Your task to perform on an android device: turn off sleep mode Image 0: 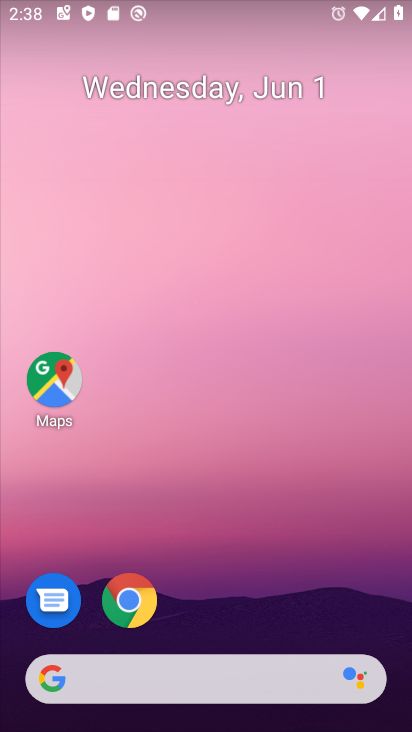
Step 0: drag from (278, 564) to (173, 8)
Your task to perform on an android device: turn off sleep mode Image 1: 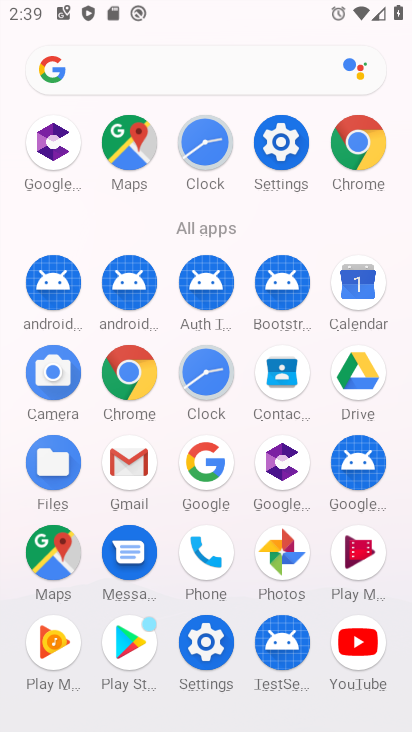
Step 1: drag from (9, 517) to (6, 227)
Your task to perform on an android device: turn off sleep mode Image 2: 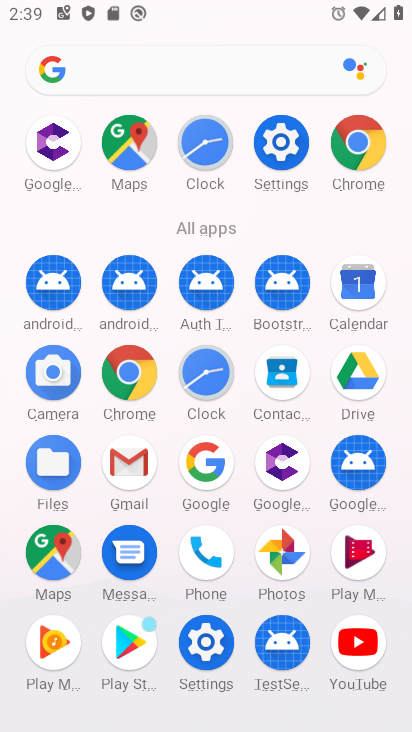
Step 2: click (202, 640)
Your task to perform on an android device: turn off sleep mode Image 3: 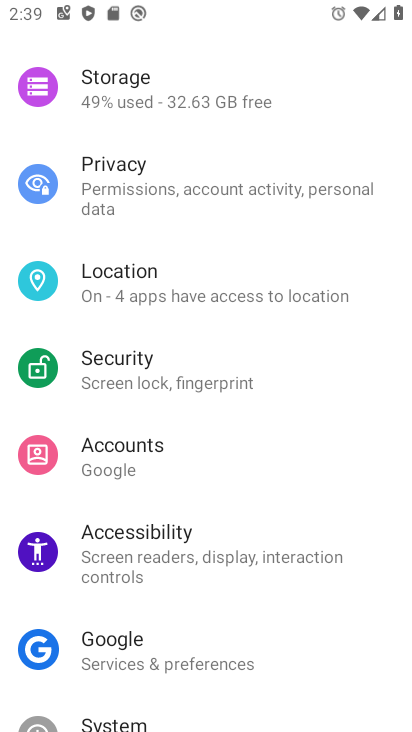
Step 3: drag from (260, 178) to (271, 597)
Your task to perform on an android device: turn off sleep mode Image 4: 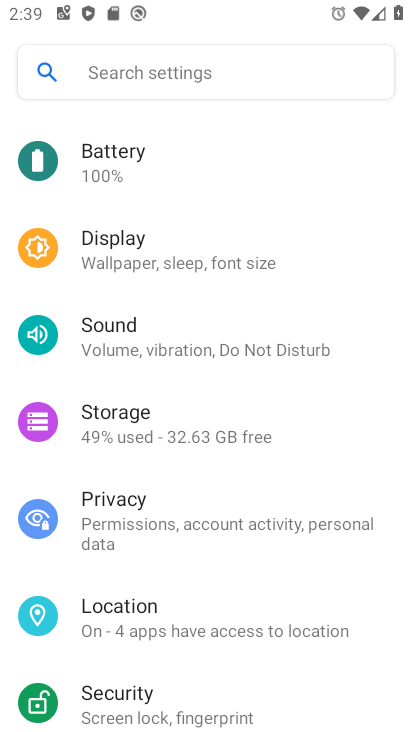
Step 4: drag from (175, 228) to (198, 547)
Your task to perform on an android device: turn off sleep mode Image 5: 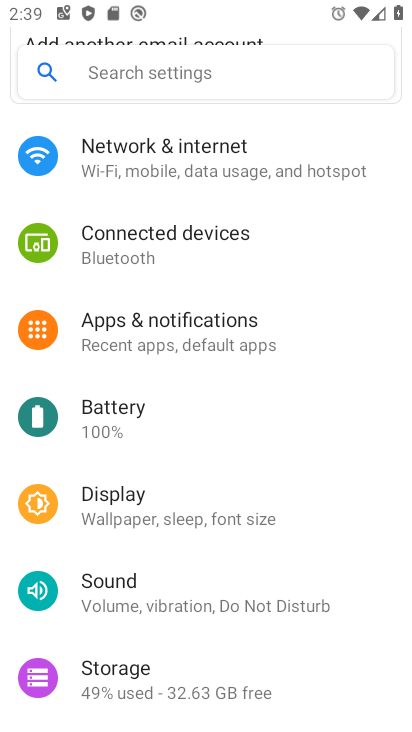
Step 5: drag from (234, 235) to (249, 528)
Your task to perform on an android device: turn off sleep mode Image 6: 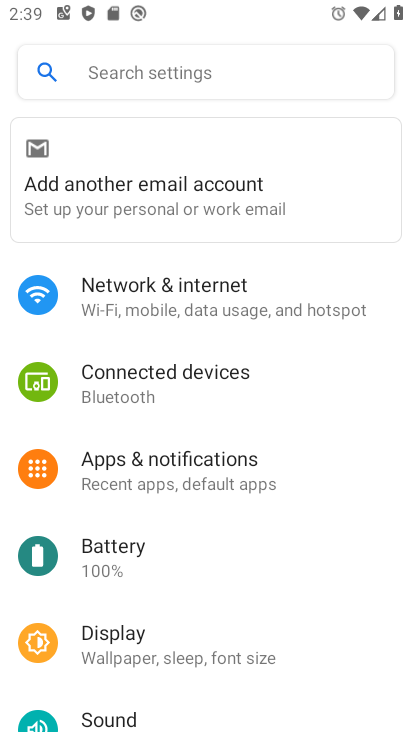
Step 6: click (218, 307)
Your task to perform on an android device: turn off sleep mode Image 7: 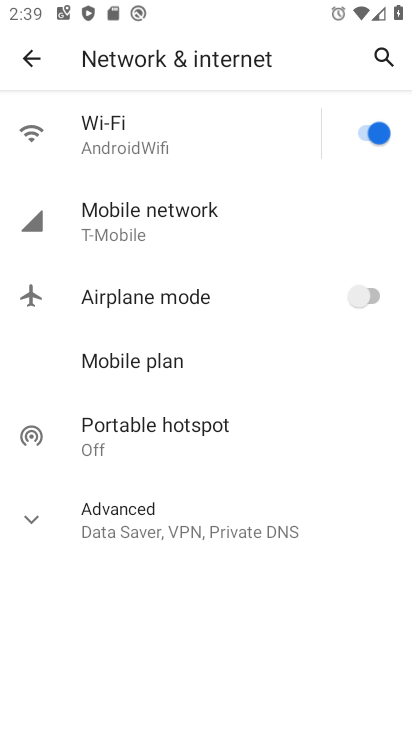
Step 7: click (49, 519)
Your task to perform on an android device: turn off sleep mode Image 8: 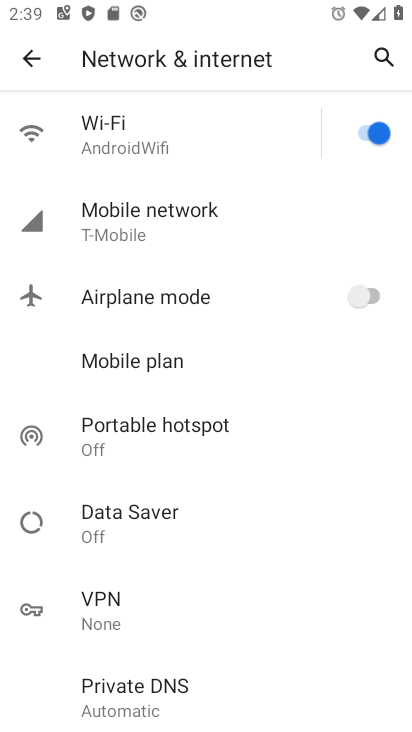
Step 8: drag from (213, 542) to (186, 122)
Your task to perform on an android device: turn off sleep mode Image 9: 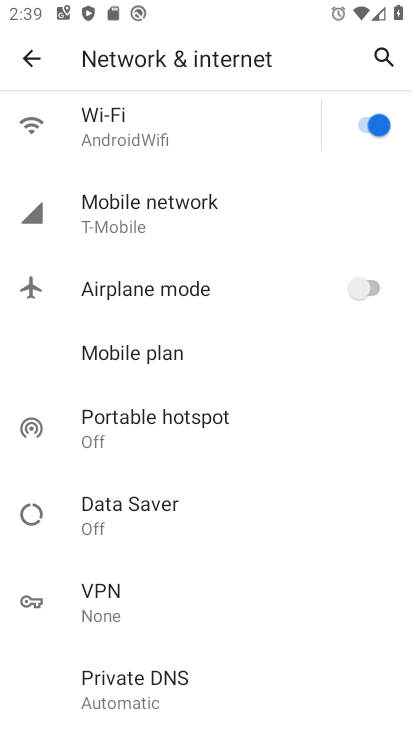
Step 9: click (25, 44)
Your task to perform on an android device: turn off sleep mode Image 10: 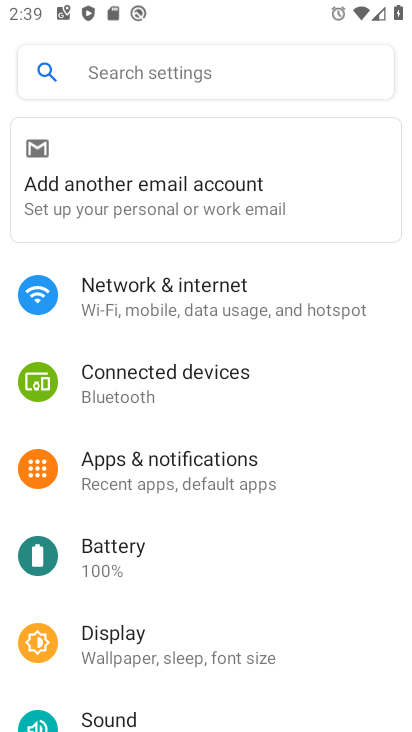
Step 10: click (202, 646)
Your task to perform on an android device: turn off sleep mode Image 11: 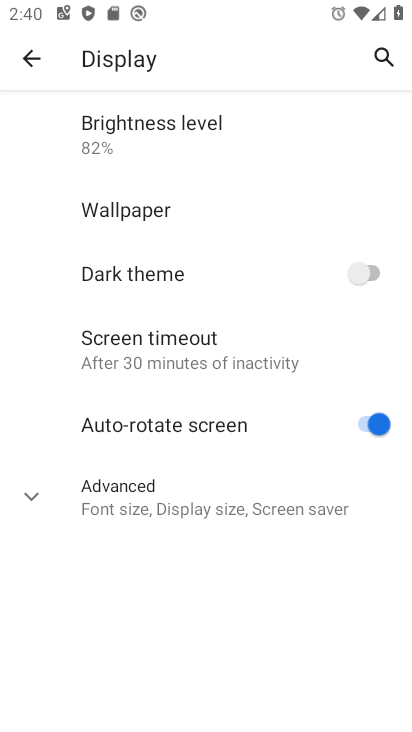
Step 11: click (34, 487)
Your task to perform on an android device: turn off sleep mode Image 12: 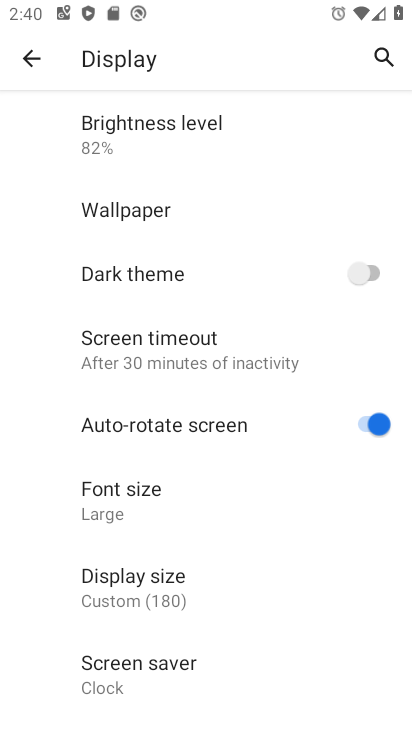
Step 12: task complete